Your task to perform on an android device: check android version Image 0: 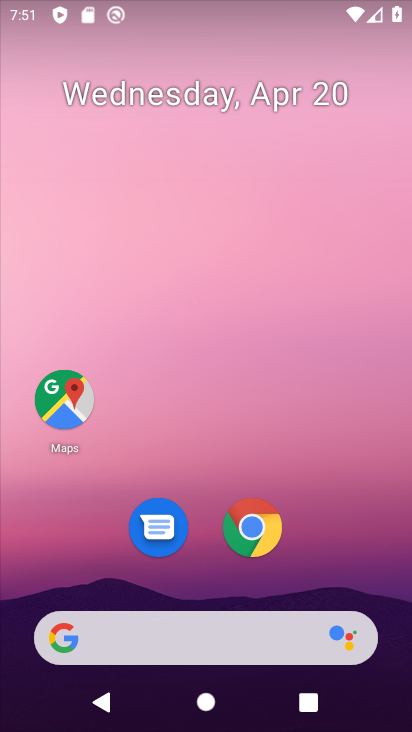
Step 0: drag from (191, 606) to (245, 205)
Your task to perform on an android device: check android version Image 1: 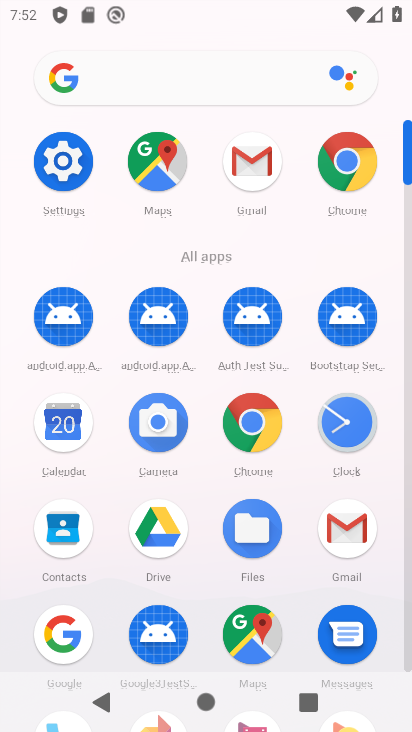
Step 1: click (70, 153)
Your task to perform on an android device: check android version Image 2: 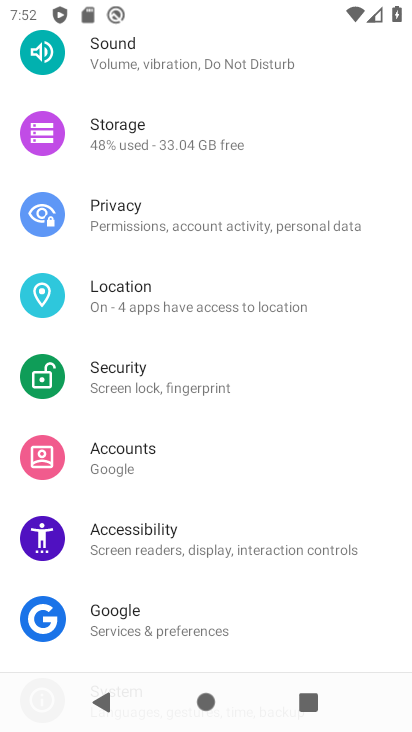
Step 2: drag from (132, 610) to (176, 258)
Your task to perform on an android device: check android version Image 3: 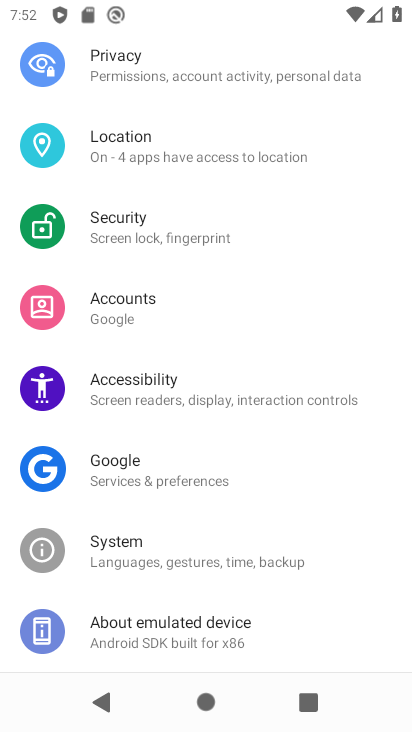
Step 3: click (192, 636)
Your task to perform on an android device: check android version Image 4: 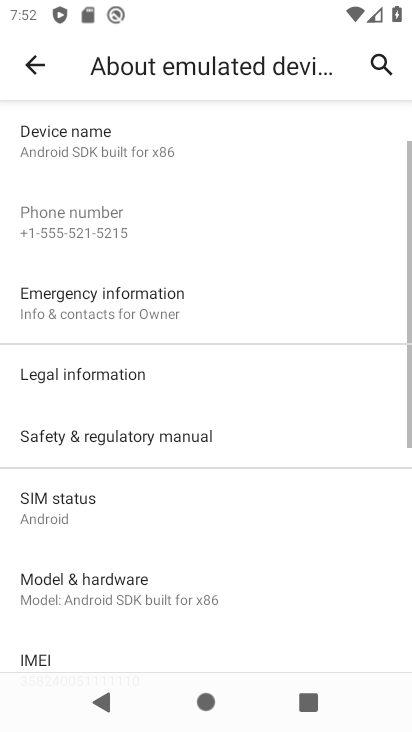
Step 4: drag from (133, 628) to (148, 316)
Your task to perform on an android device: check android version Image 5: 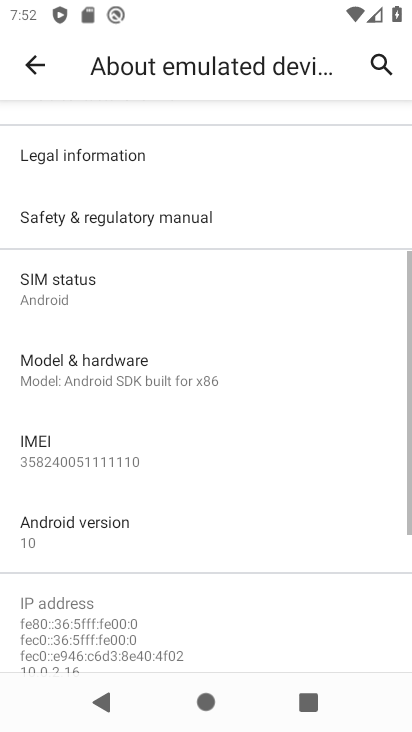
Step 5: click (105, 538)
Your task to perform on an android device: check android version Image 6: 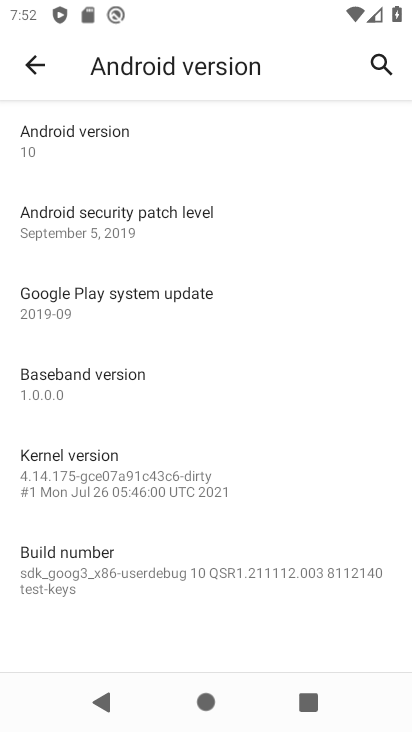
Step 6: task complete